Your task to perform on an android device: Open Google Chrome and click the shortcut for Amazon.com Image 0: 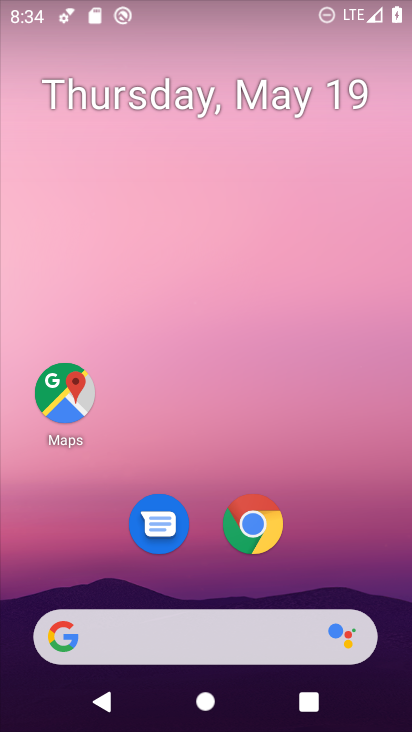
Step 0: click (273, 526)
Your task to perform on an android device: Open Google Chrome and click the shortcut for Amazon.com Image 1: 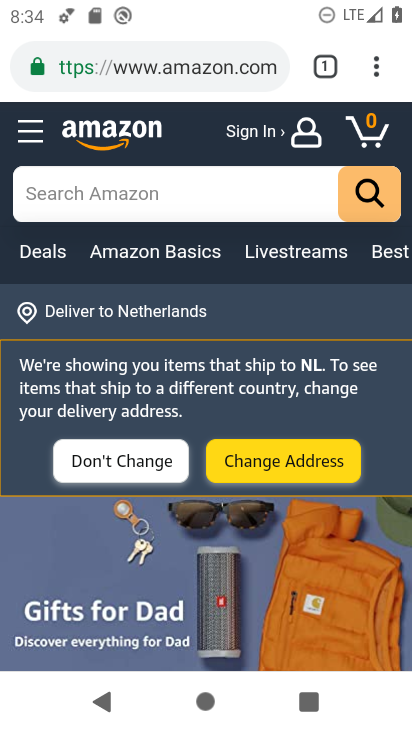
Step 1: task complete